Your task to perform on an android device: refresh tabs in the chrome app Image 0: 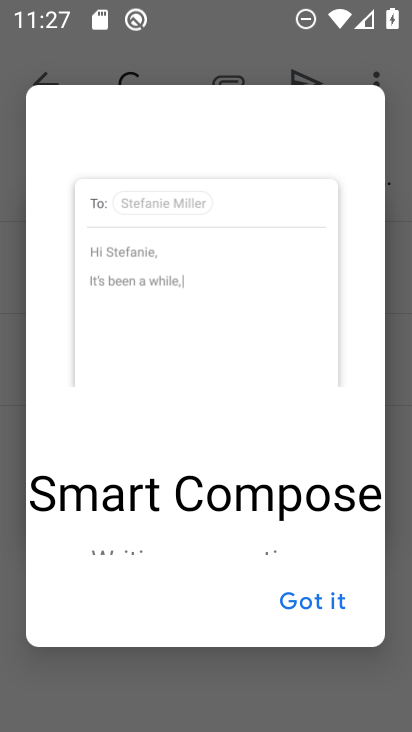
Step 0: press home button
Your task to perform on an android device: refresh tabs in the chrome app Image 1: 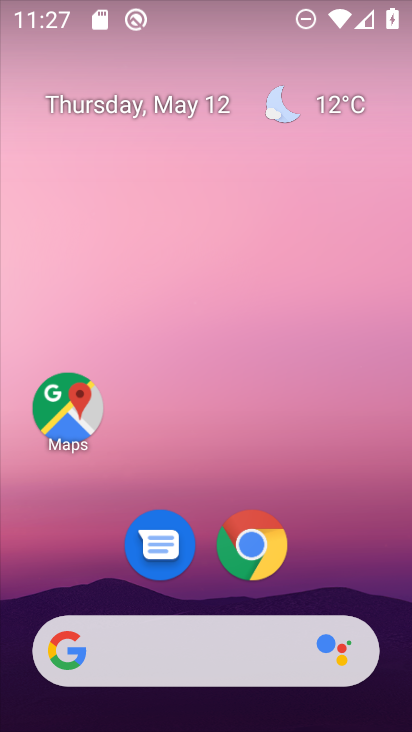
Step 1: click (238, 531)
Your task to perform on an android device: refresh tabs in the chrome app Image 2: 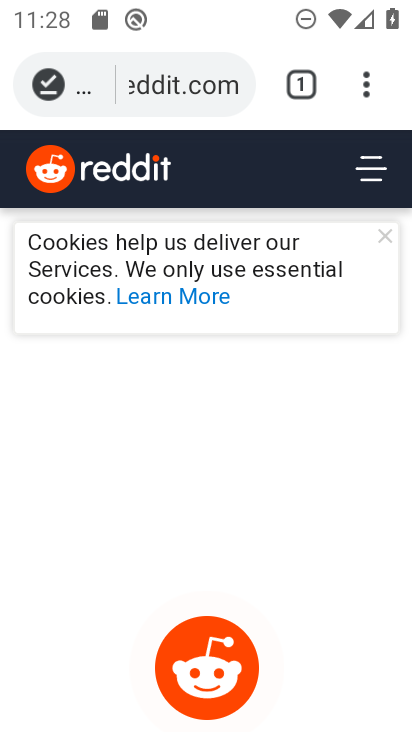
Step 2: click (365, 82)
Your task to perform on an android device: refresh tabs in the chrome app Image 3: 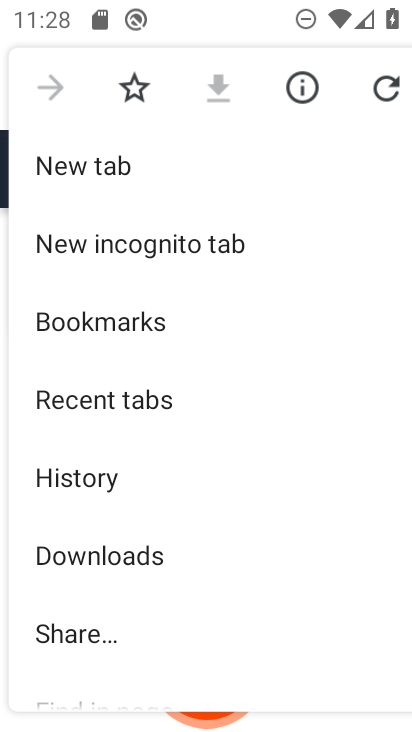
Step 3: click (383, 91)
Your task to perform on an android device: refresh tabs in the chrome app Image 4: 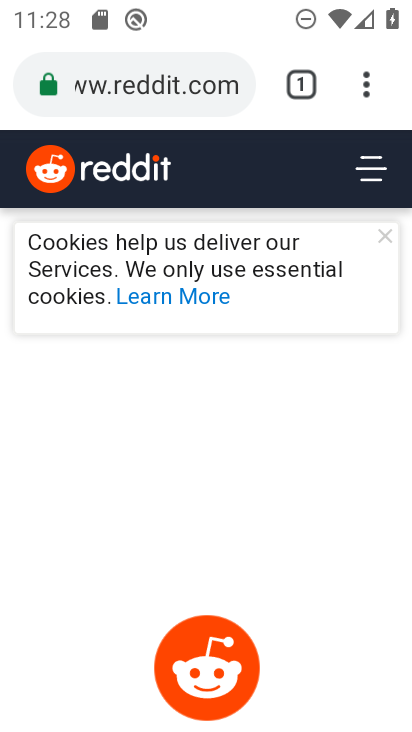
Step 4: task complete